Your task to perform on an android device: toggle location history Image 0: 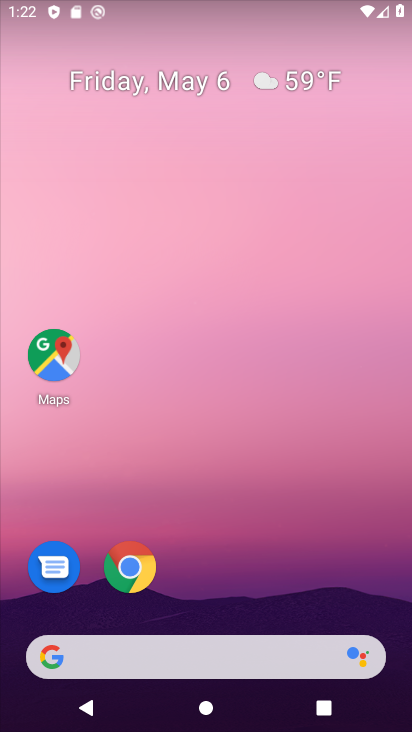
Step 0: drag from (274, 579) to (211, 11)
Your task to perform on an android device: toggle location history Image 1: 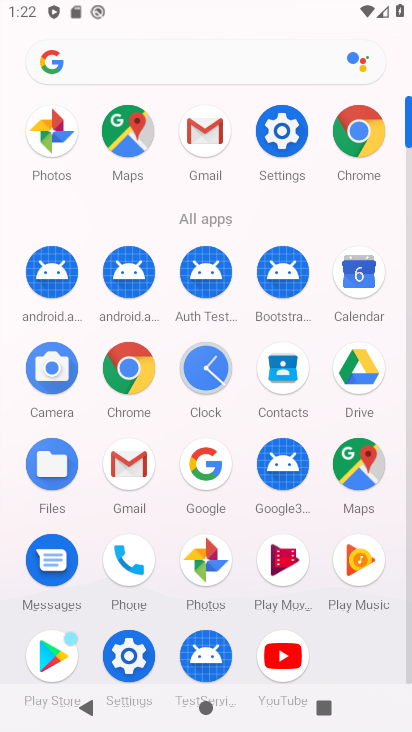
Step 1: click (141, 654)
Your task to perform on an android device: toggle location history Image 2: 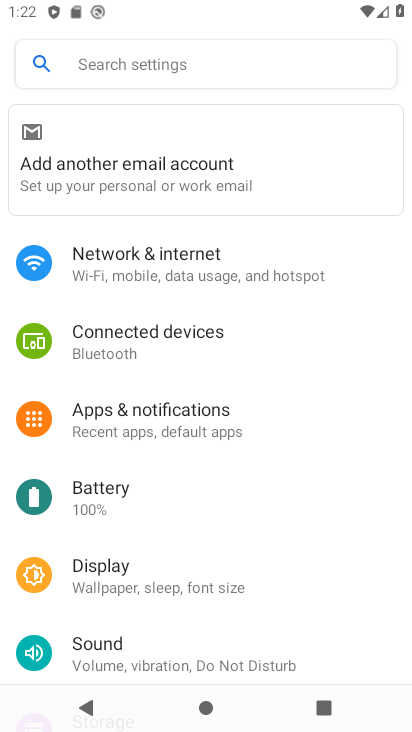
Step 2: drag from (204, 625) to (172, 314)
Your task to perform on an android device: toggle location history Image 3: 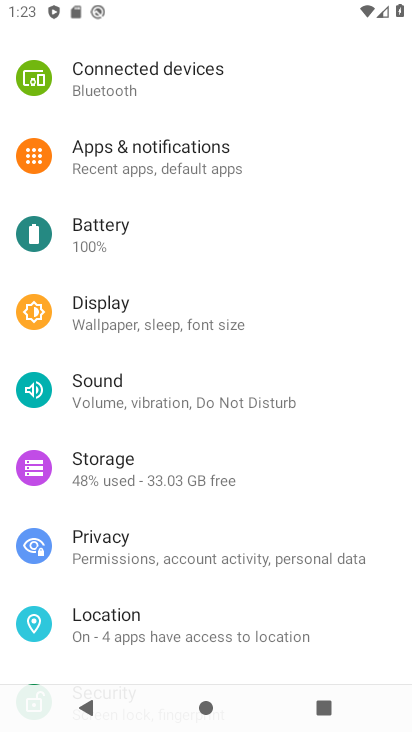
Step 3: click (166, 618)
Your task to perform on an android device: toggle location history Image 4: 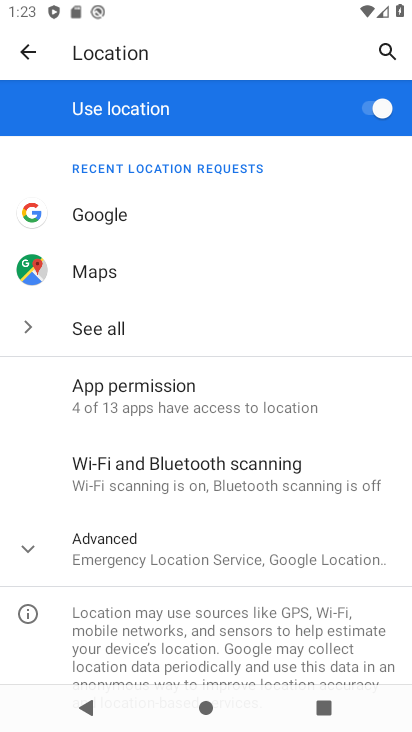
Step 4: click (194, 551)
Your task to perform on an android device: toggle location history Image 5: 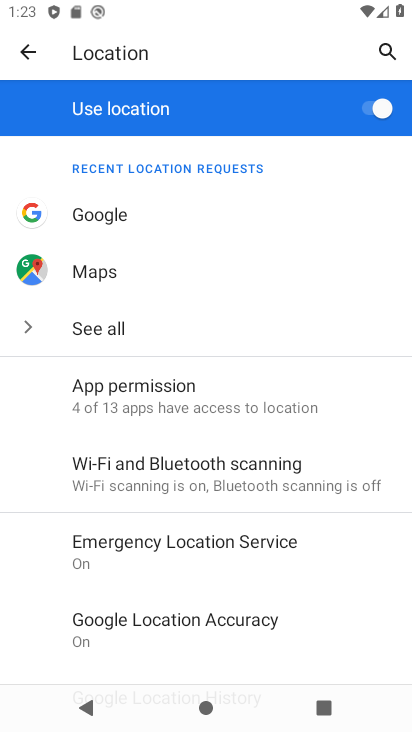
Step 5: drag from (242, 618) to (229, 311)
Your task to perform on an android device: toggle location history Image 6: 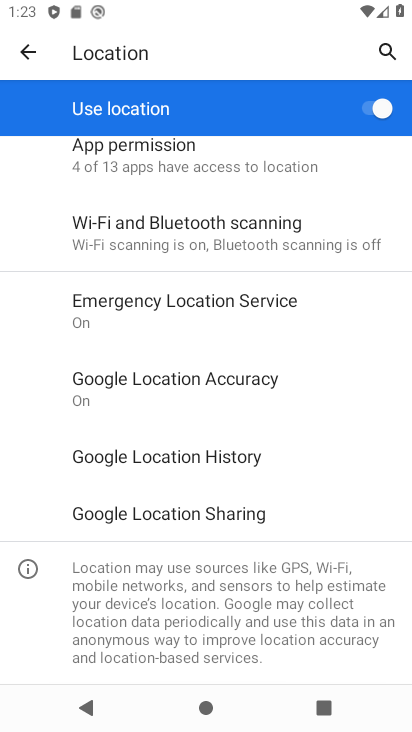
Step 6: click (209, 455)
Your task to perform on an android device: toggle location history Image 7: 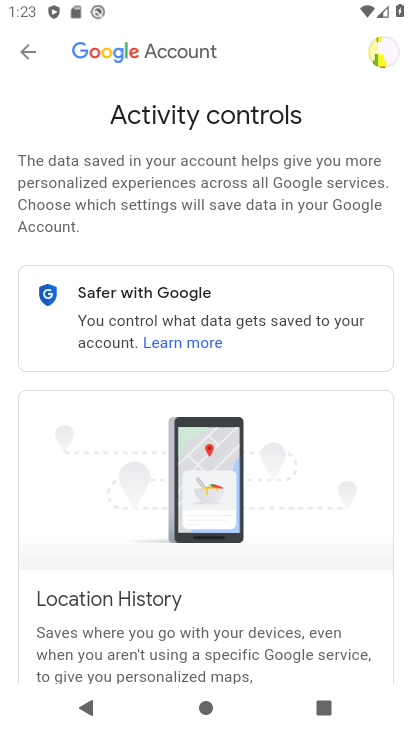
Step 7: drag from (247, 573) to (252, 323)
Your task to perform on an android device: toggle location history Image 8: 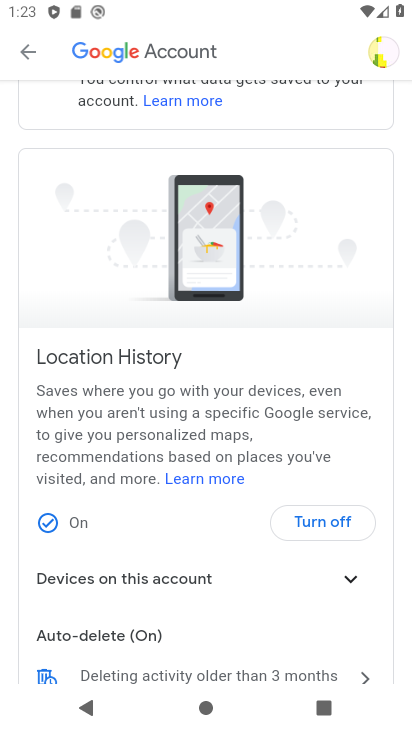
Step 8: click (306, 518)
Your task to perform on an android device: toggle location history Image 9: 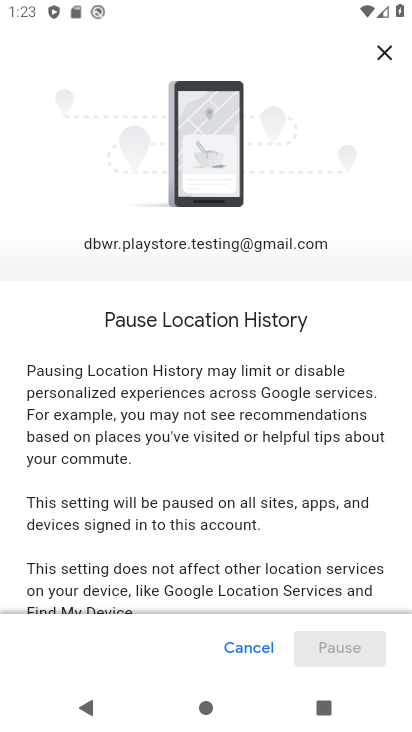
Step 9: drag from (318, 521) to (288, 247)
Your task to perform on an android device: toggle location history Image 10: 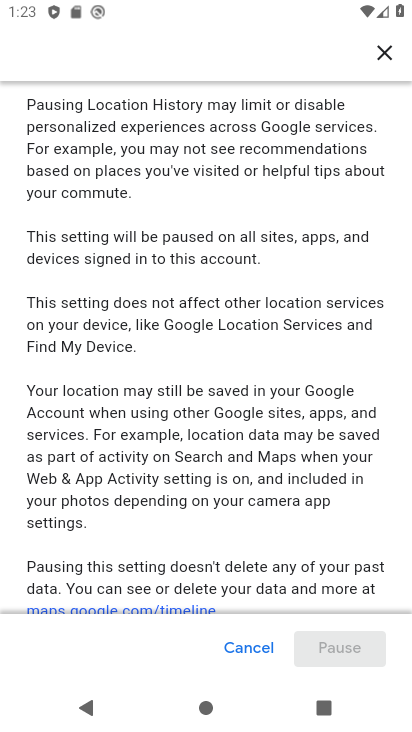
Step 10: drag from (285, 563) to (246, 160)
Your task to perform on an android device: toggle location history Image 11: 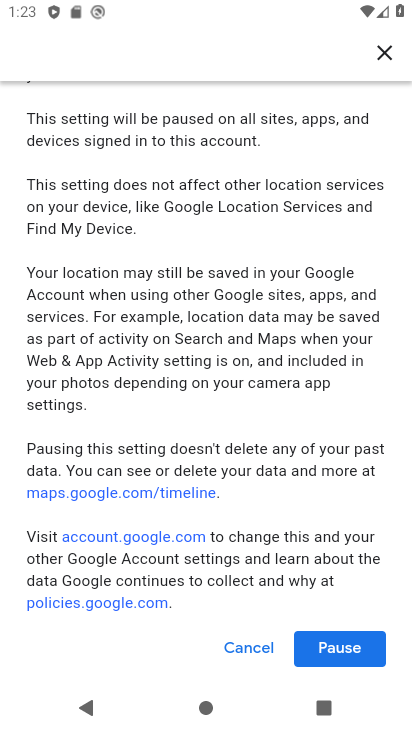
Step 11: click (320, 639)
Your task to perform on an android device: toggle location history Image 12: 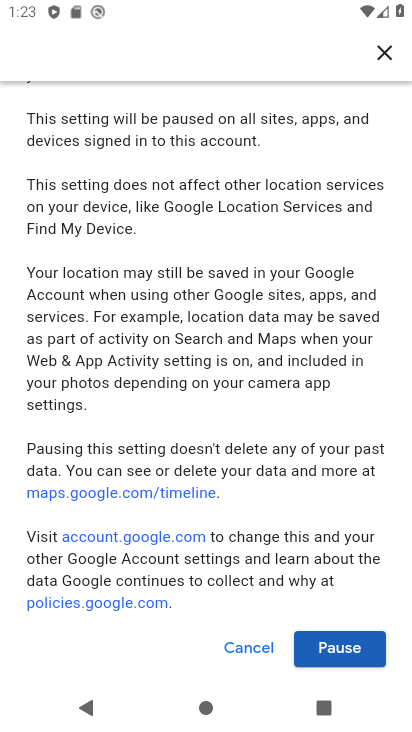
Step 12: click (339, 657)
Your task to perform on an android device: toggle location history Image 13: 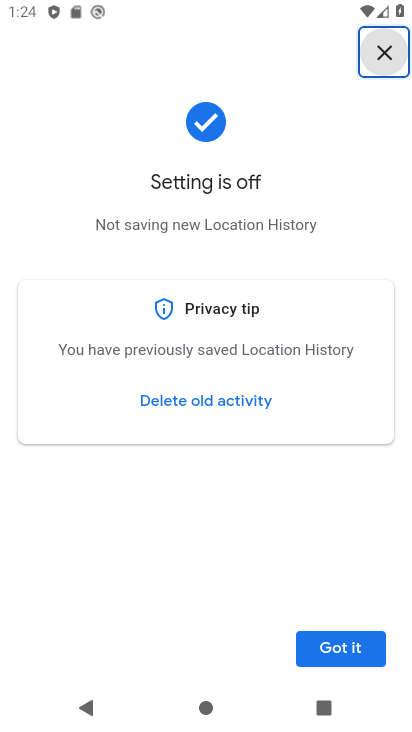
Step 13: click (333, 649)
Your task to perform on an android device: toggle location history Image 14: 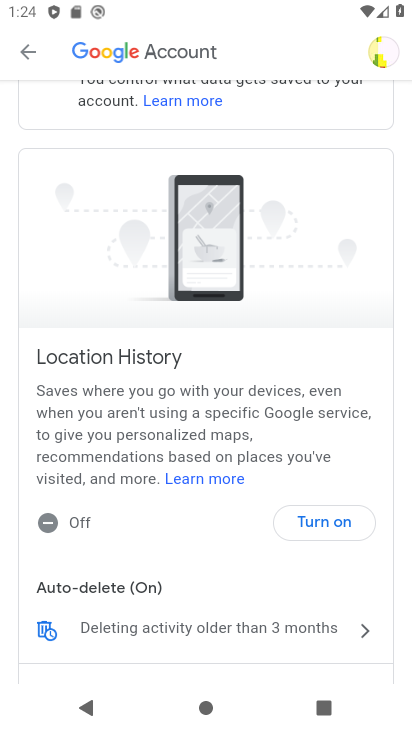
Step 14: task complete